Your task to perform on an android device: change text size in settings app Image 0: 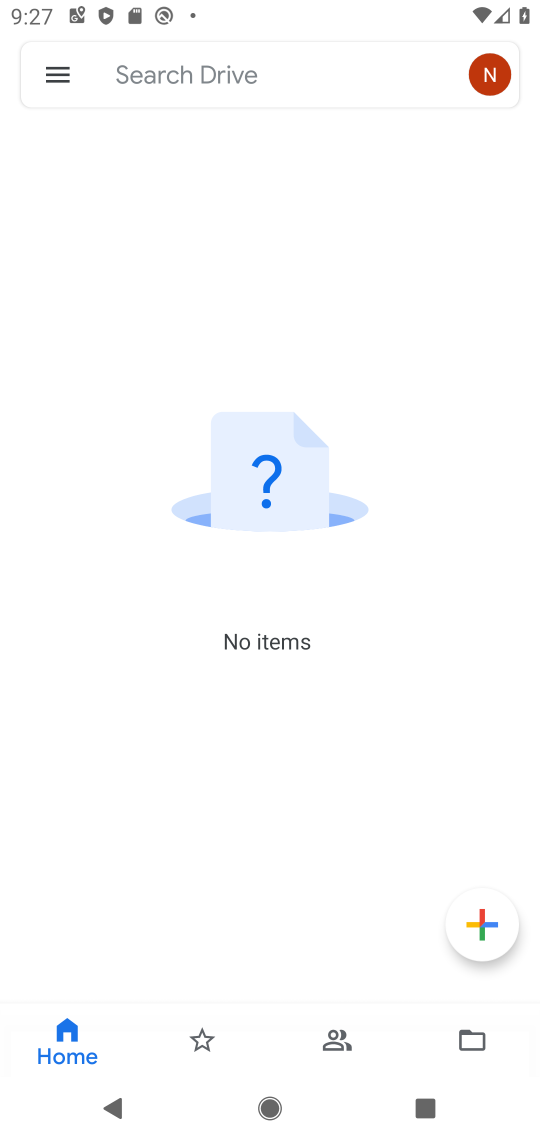
Step 0: press home button
Your task to perform on an android device: change text size in settings app Image 1: 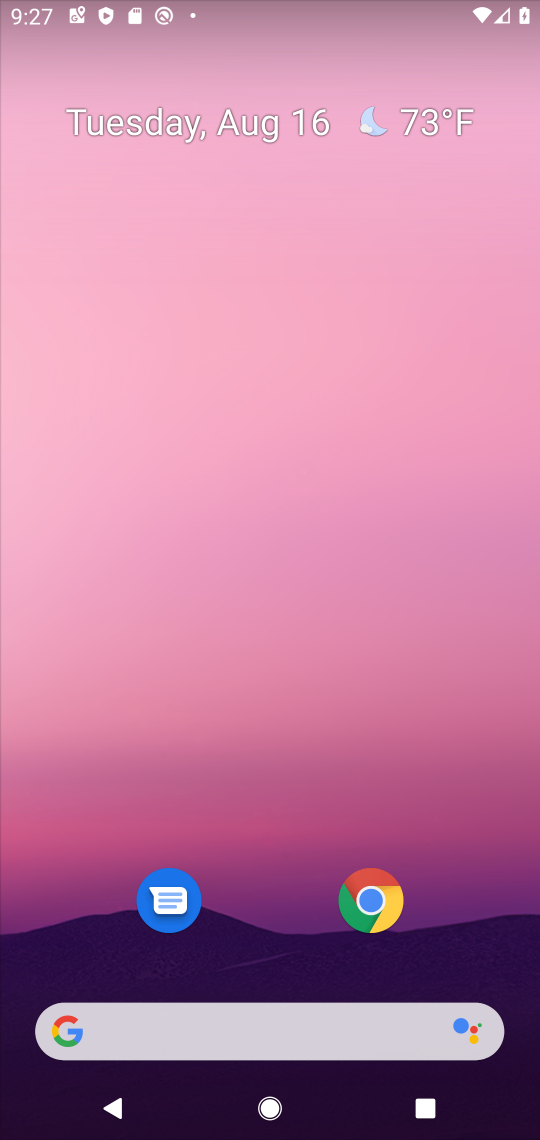
Step 1: drag from (248, 977) to (362, 93)
Your task to perform on an android device: change text size in settings app Image 2: 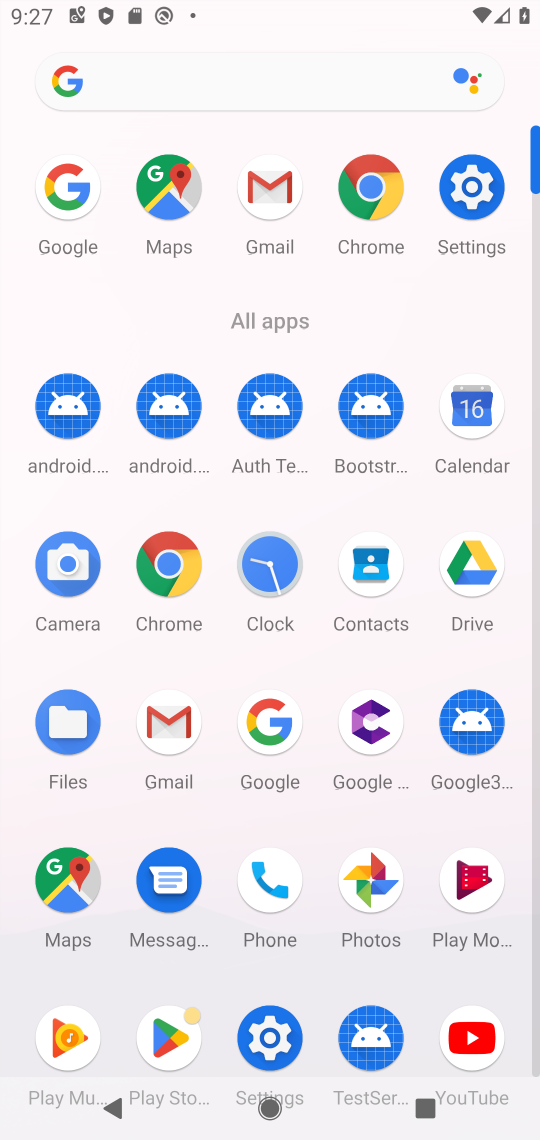
Step 2: click (266, 1044)
Your task to perform on an android device: change text size in settings app Image 3: 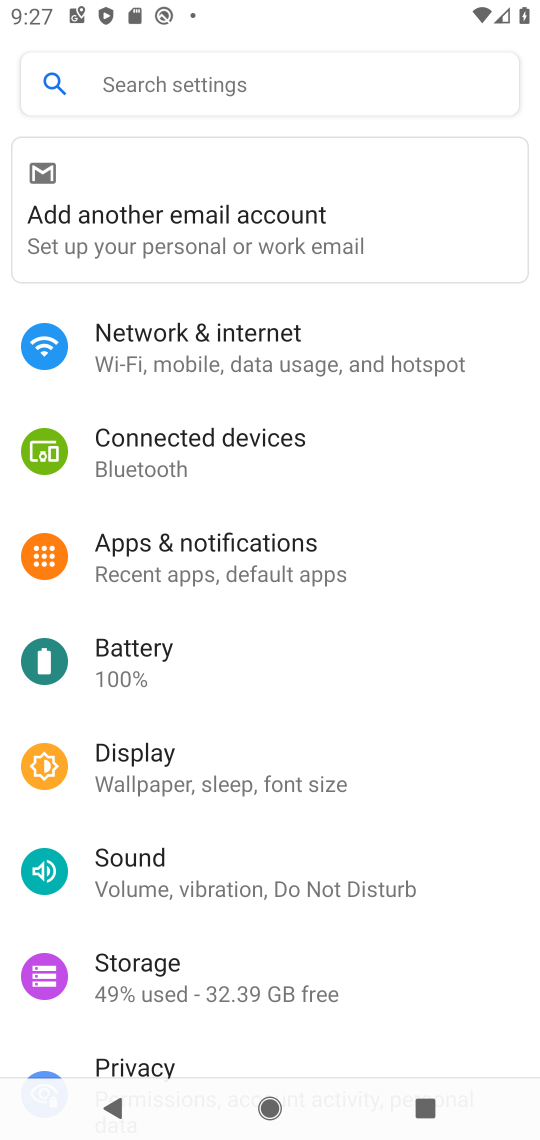
Step 3: drag from (123, 976) to (253, 217)
Your task to perform on an android device: change text size in settings app Image 4: 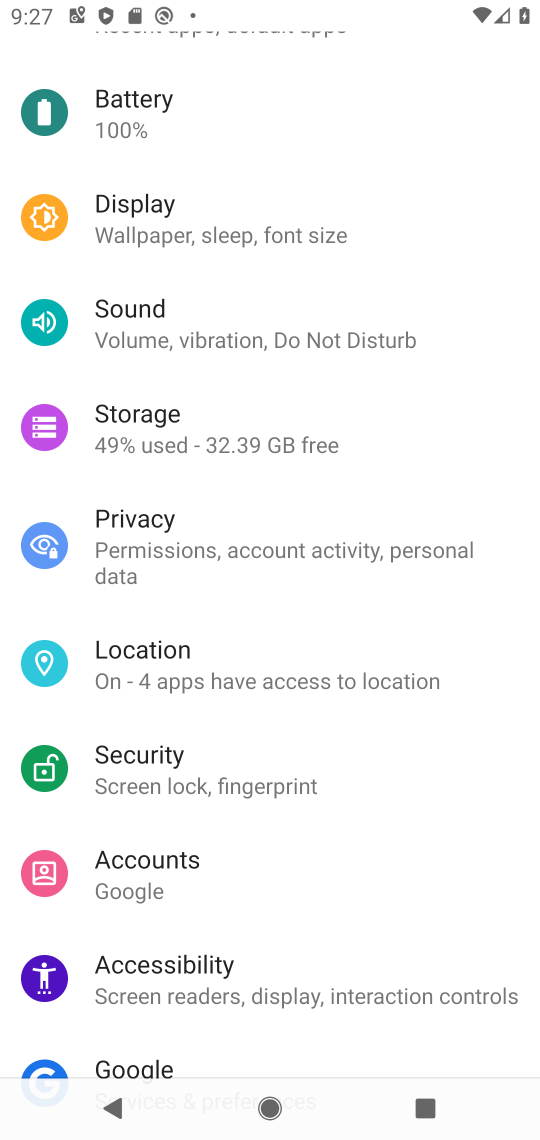
Step 4: click (145, 970)
Your task to perform on an android device: change text size in settings app Image 5: 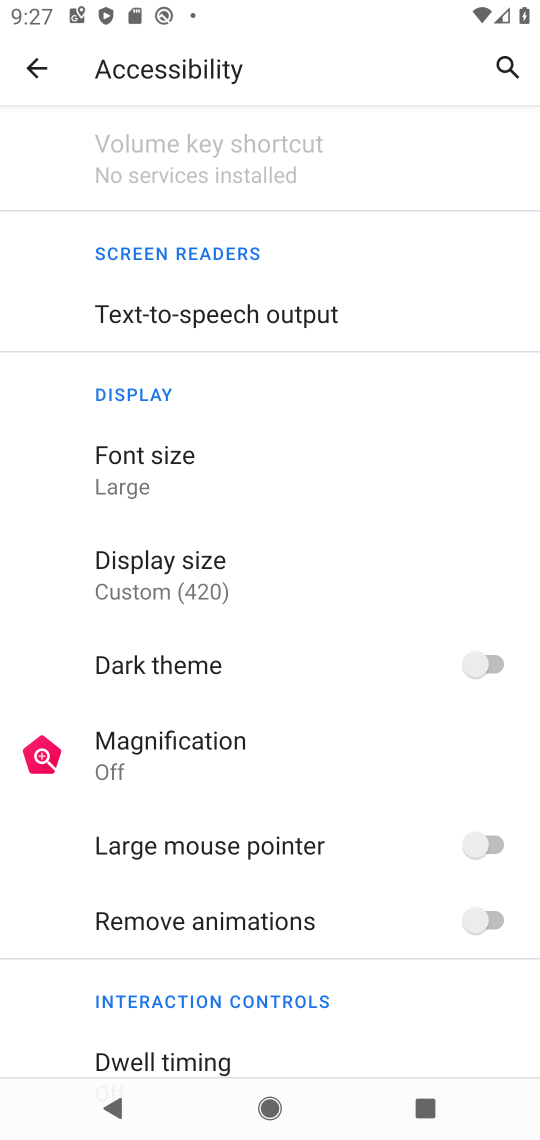
Step 5: click (183, 481)
Your task to perform on an android device: change text size in settings app Image 6: 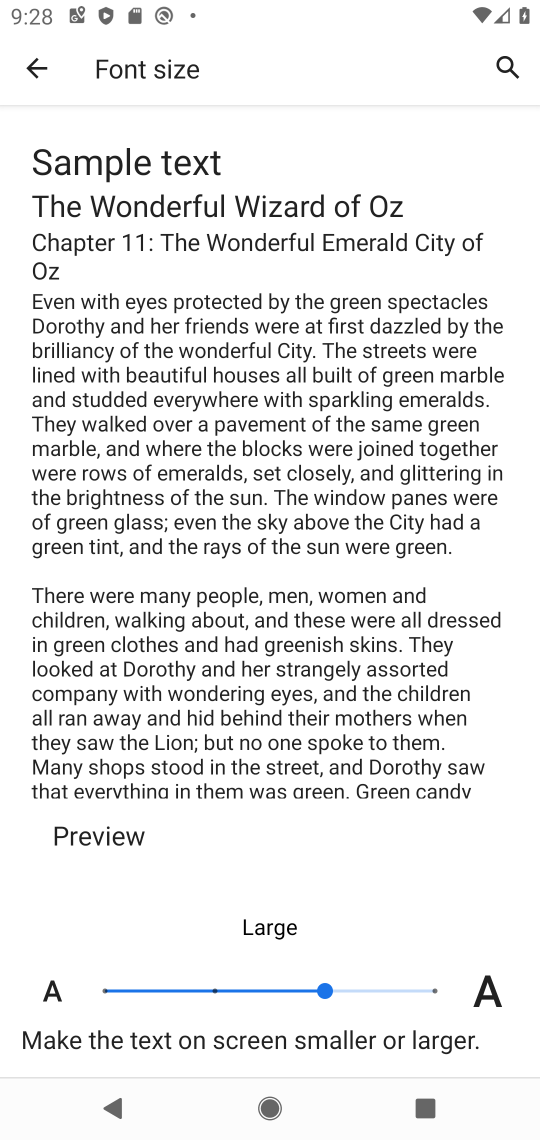
Step 6: press home button
Your task to perform on an android device: change text size in settings app Image 7: 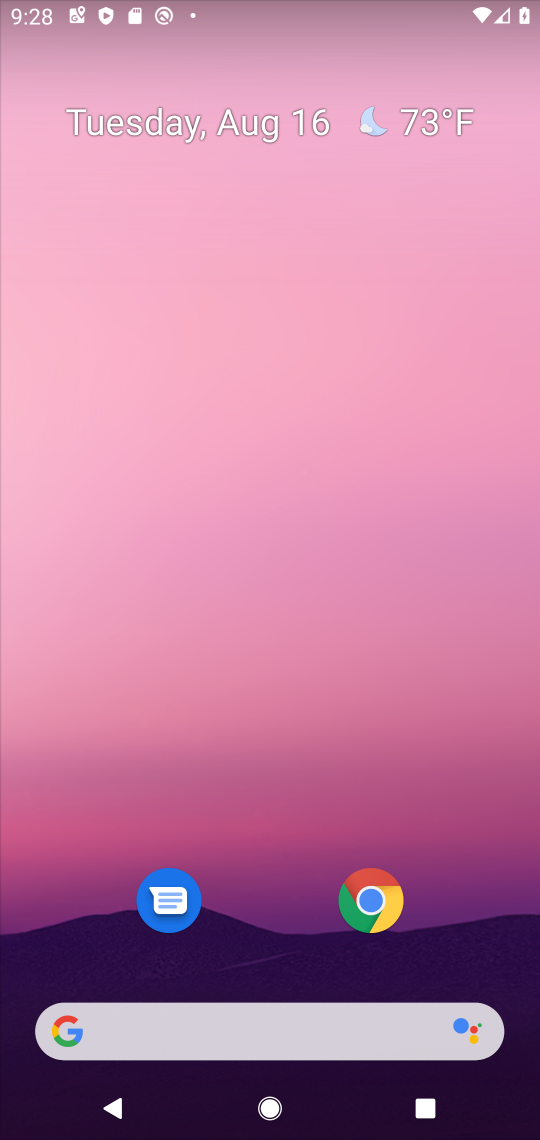
Step 7: drag from (168, 691) to (236, 196)
Your task to perform on an android device: change text size in settings app Image 8: 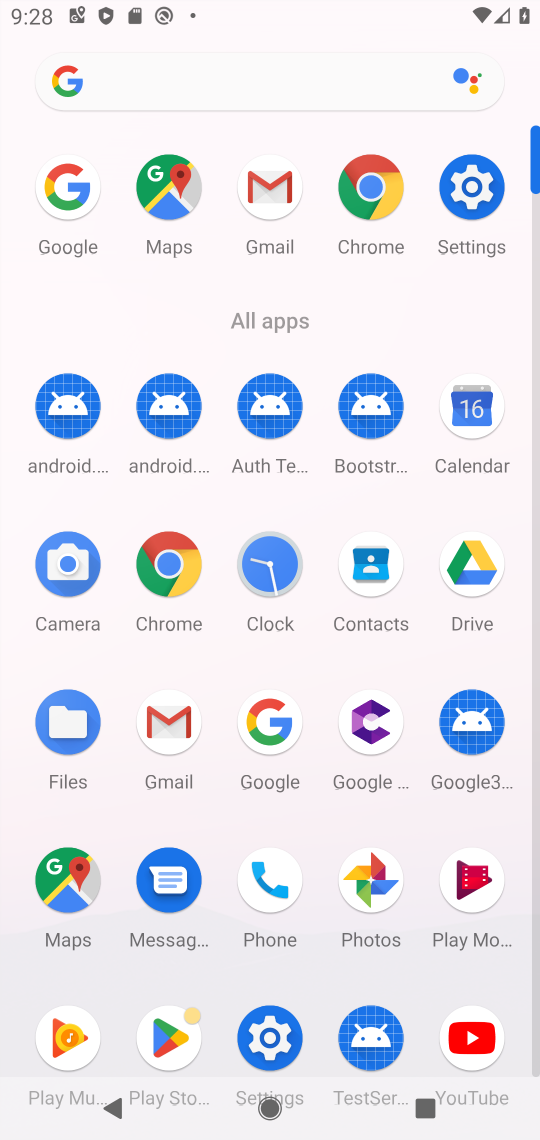
Step 8: click (293, 1041)
Your task to perform on an android device: change text size in settings app Image 9: 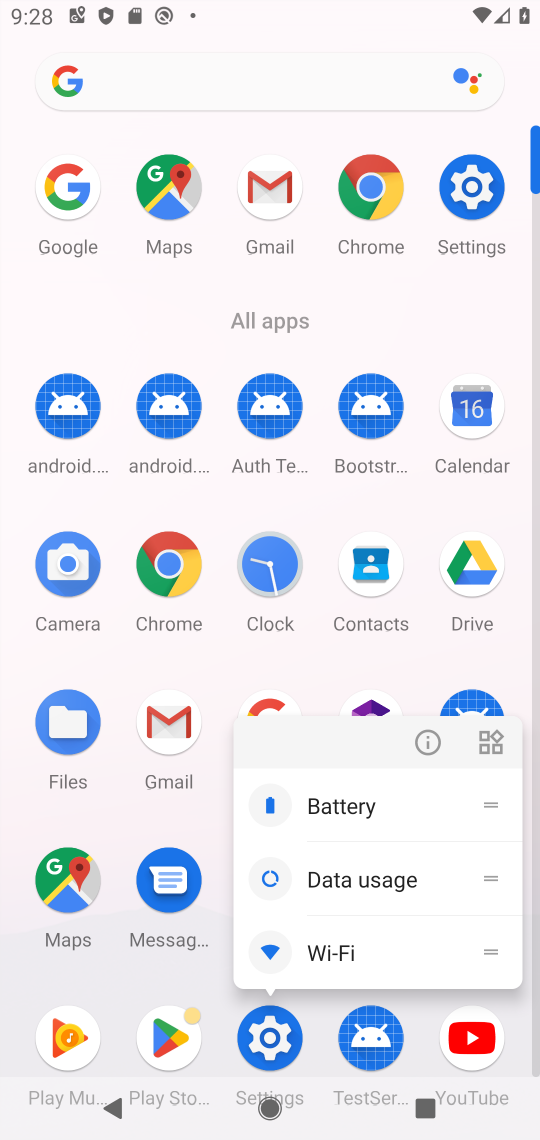
Step 9: click (288, 1043)
Your task to perform on an android device: change text size in settings app Image 10: 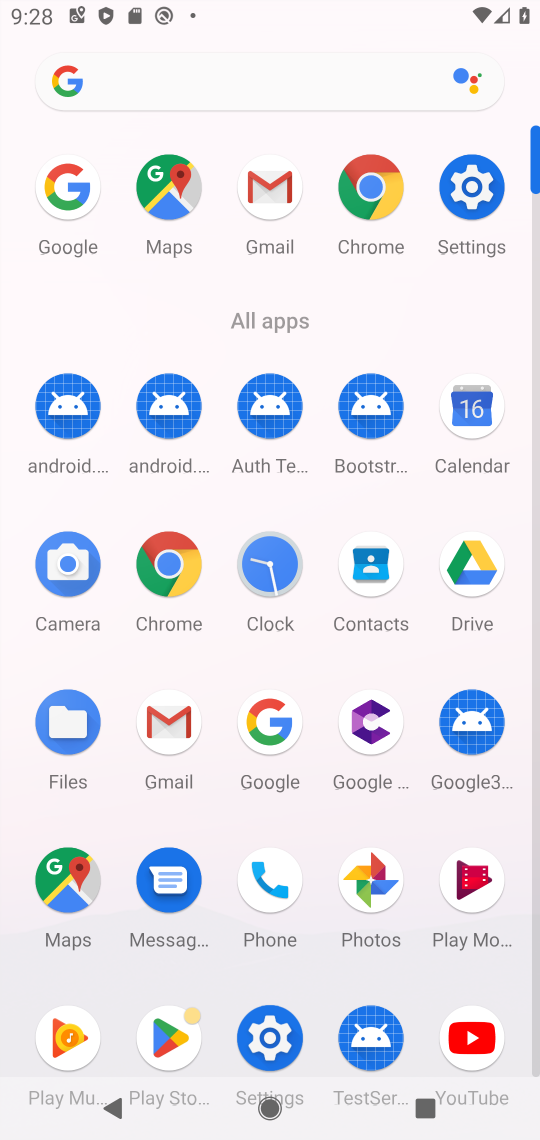
Step 10: click (288, 1043)
Your task to perform on an android device: change text size in settings app Image 11: 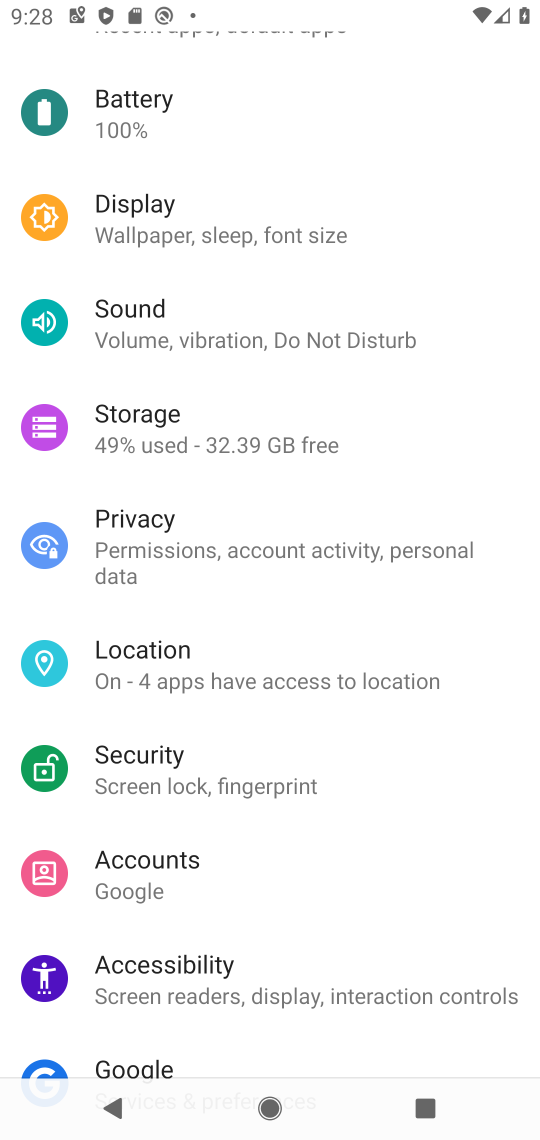
Step 11: click (139, 975)
Your task to perform on an android device: change text size in settings app Image 12: 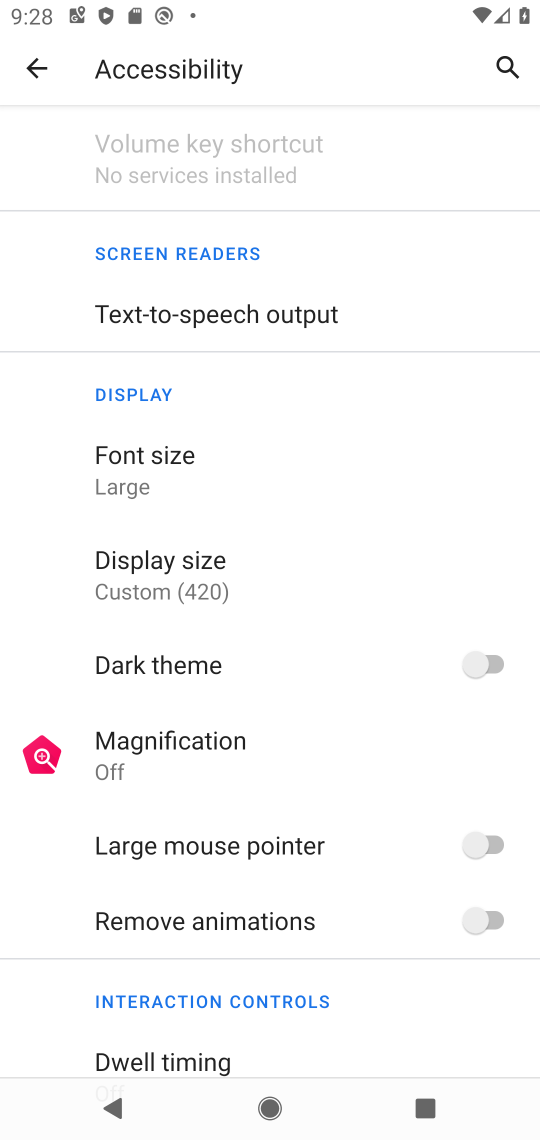
Step 12: click (152, 469)
Your task to perform on an android device: change text size in settings app Image 13: 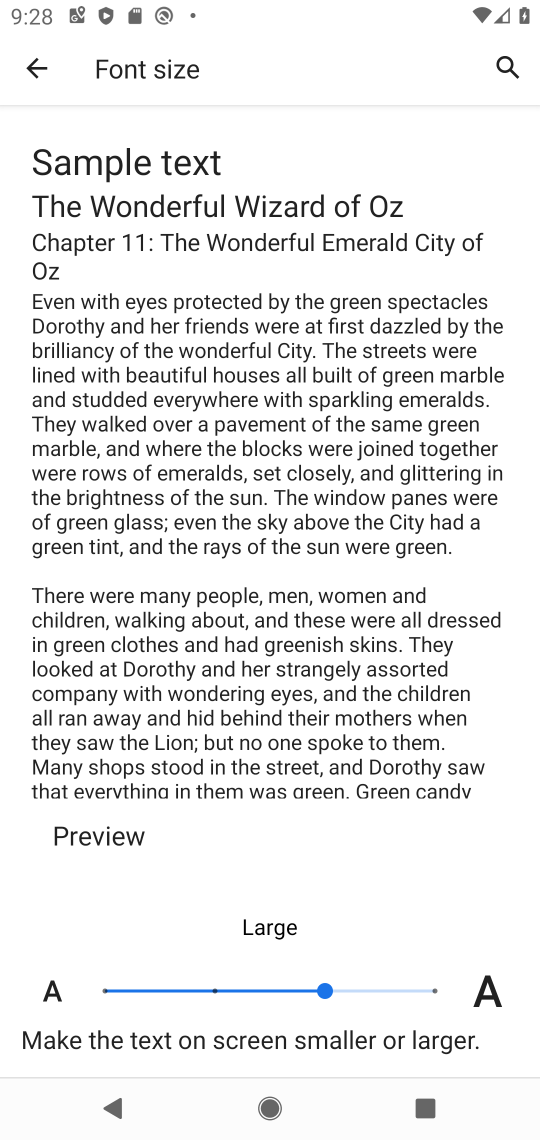
Step 13: click (228, 980)
Your task to perform on an android device: change text size in settings app Image 14: 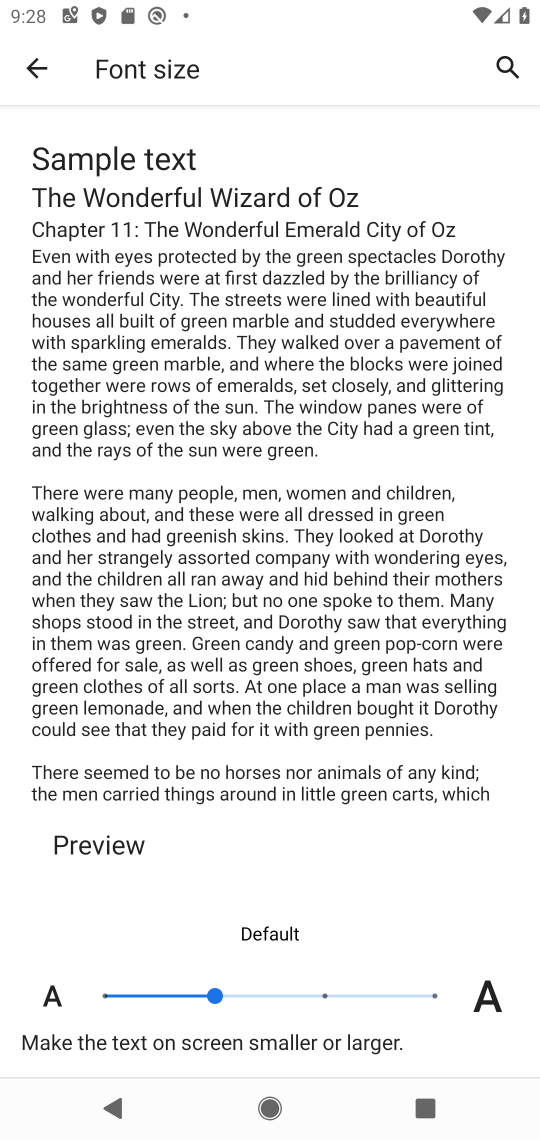
Step 14: task complete